Your task to perform on an android device: turn smart compose on in the gmail app Image 0: 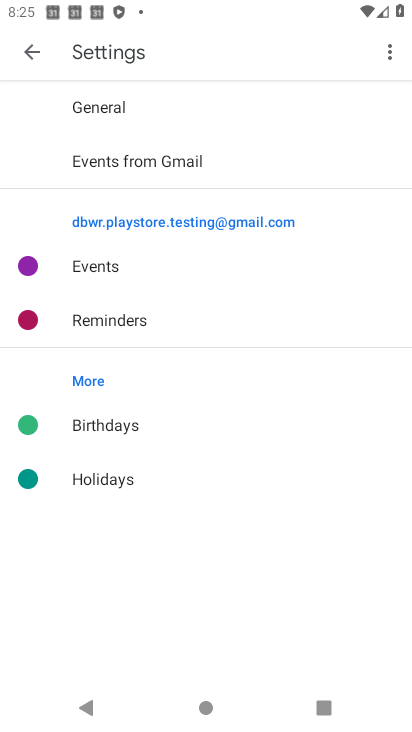
Step 0: press home button
Your task to perform on an android device: turn smart compose on in the gmail app Image 1: 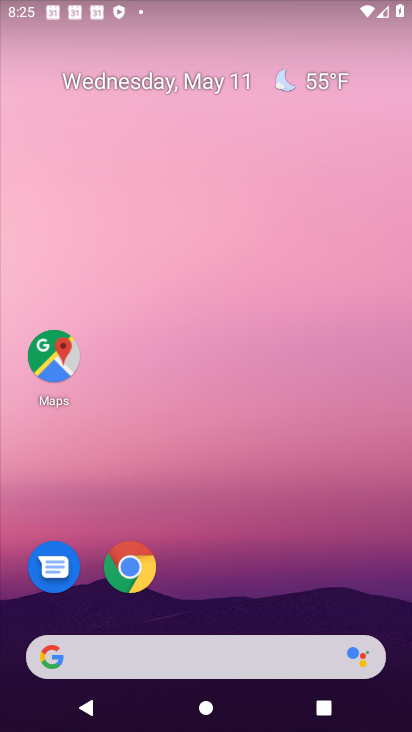
Step 1: drag from (310, 696) to (267, 12)
Your task to perform on an android device: turn smart compose on in the gmail app Image 2: 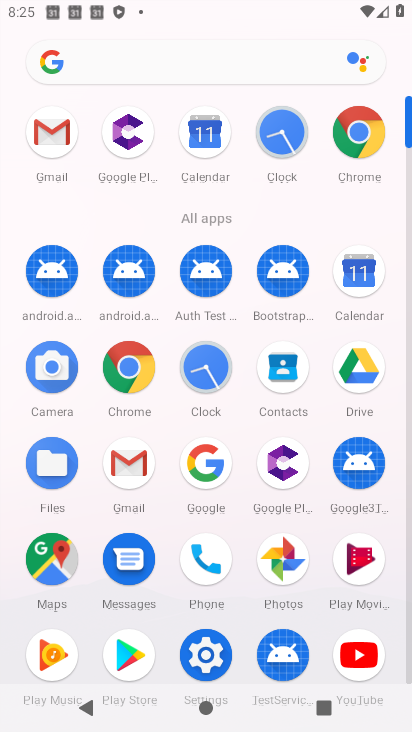
Step 2: click (124, 452)
Your task to perform on an android device: turn smart compose on in the gmail app Image 3: 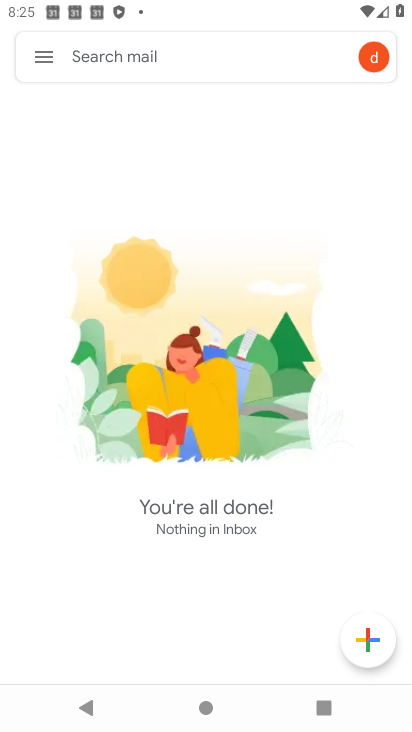
Step 3: click (46, 55)
Your task to perform on an android device: turn smart compose on in the gmail app Image 4: 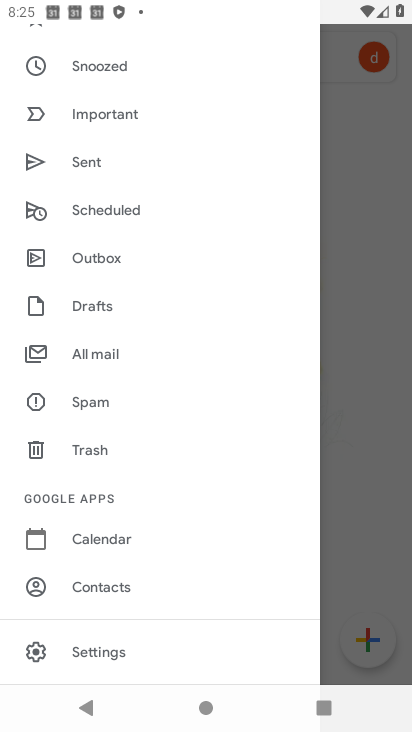
Step 4: drag from (154, 577) to (157, 349)
Your task to perform on an android device: turn smart compose on in the gmail app Image 5: 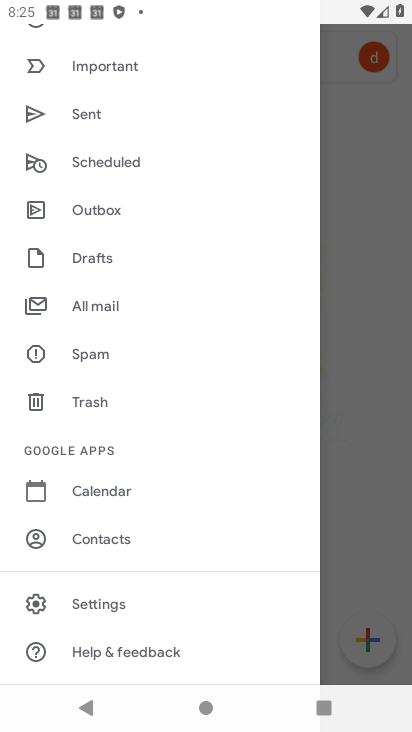
Step 5: click (101, 608)
Your task to perform on an android device: turn smart compose on in the gmail app Image 6: 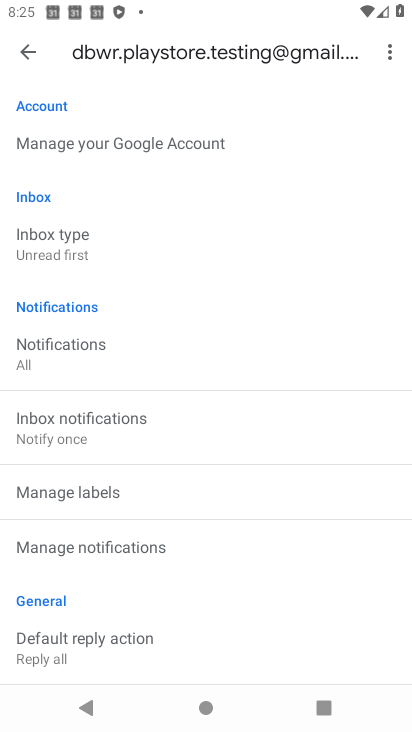
Step 6: task complete